Your task to perform on an android device: Go to network settings Image 0: 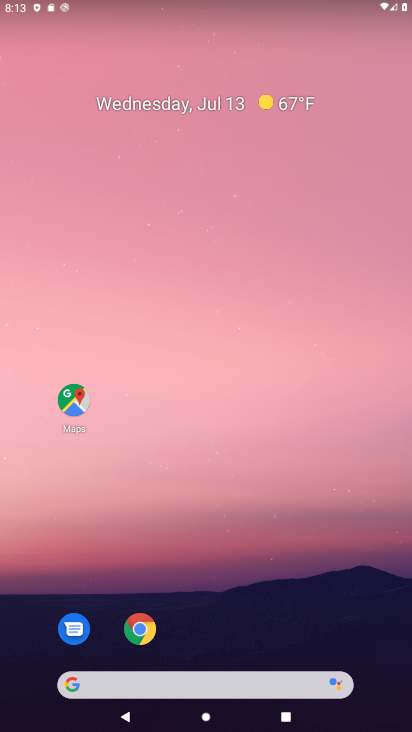
Step 0: drag from (236, 620) to (232, 14)
Your task to perform on an android device: Go to network settings Image 1: 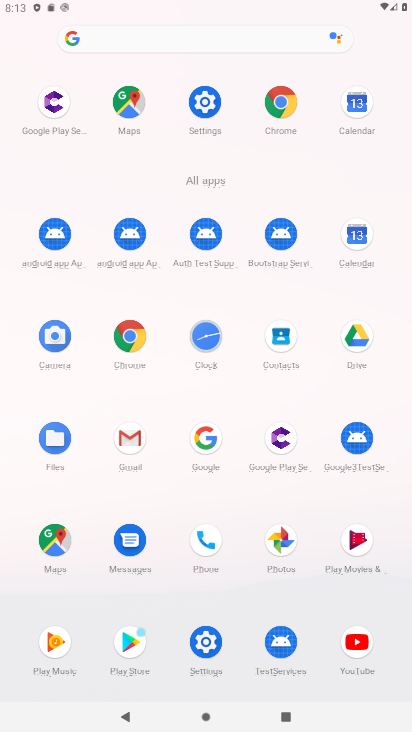
Step 1: click (211, 641)
Your task to perform on an android device: Go to network settings Image 2: 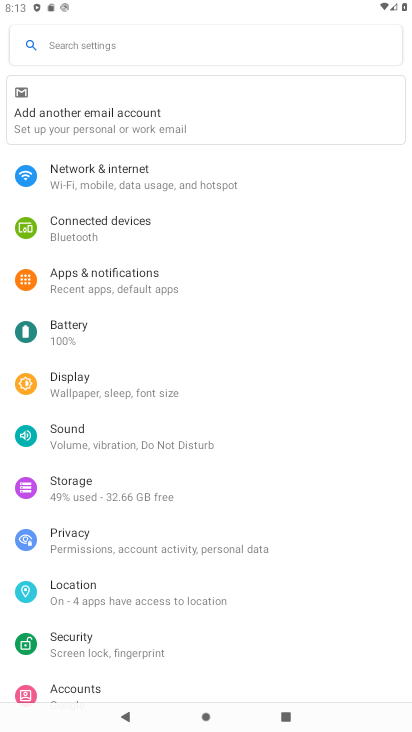
Step 2: click (144, 175)
Your task to perform on an android device: Go to network settings Image 3: 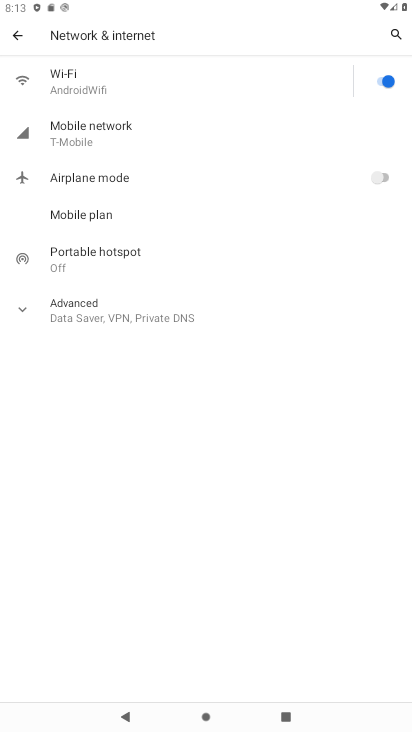
Step 3: task complete